Your task to perform on an android device: turn off notifications in google photos Image 0: 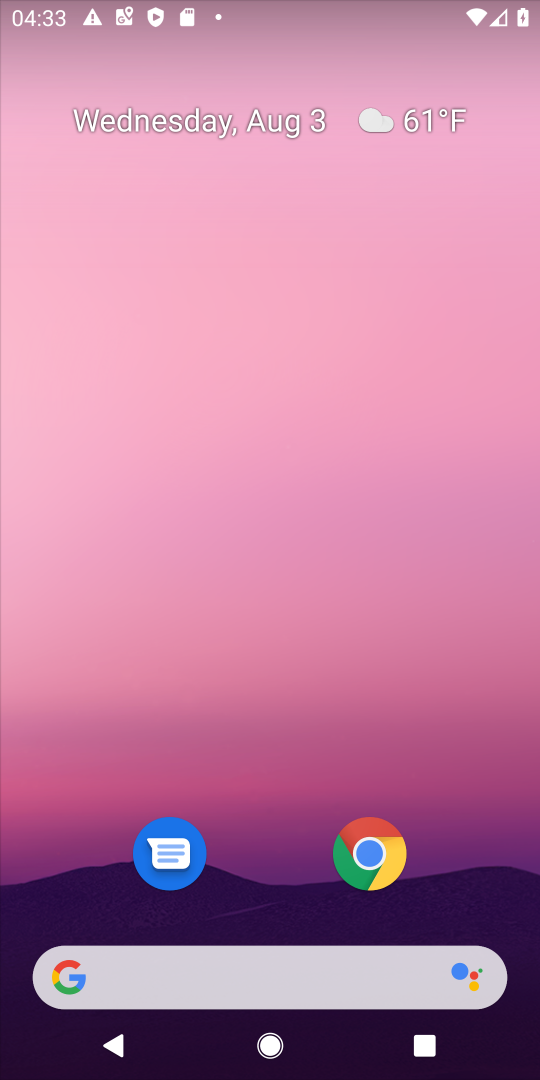
Step 0: drag from (314, 964) to (294, 233)
Your task to perform on an android device: turn off notifications in google photos Image 1: 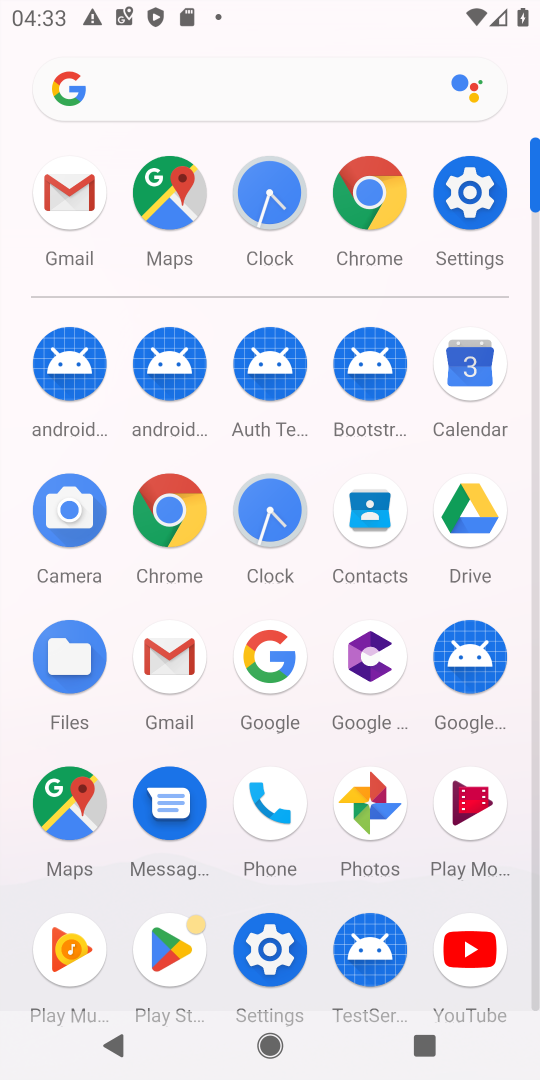
Step 1: click (365, 797)
Your task to perform on an android device: turn off notifications in google photos Image 2: 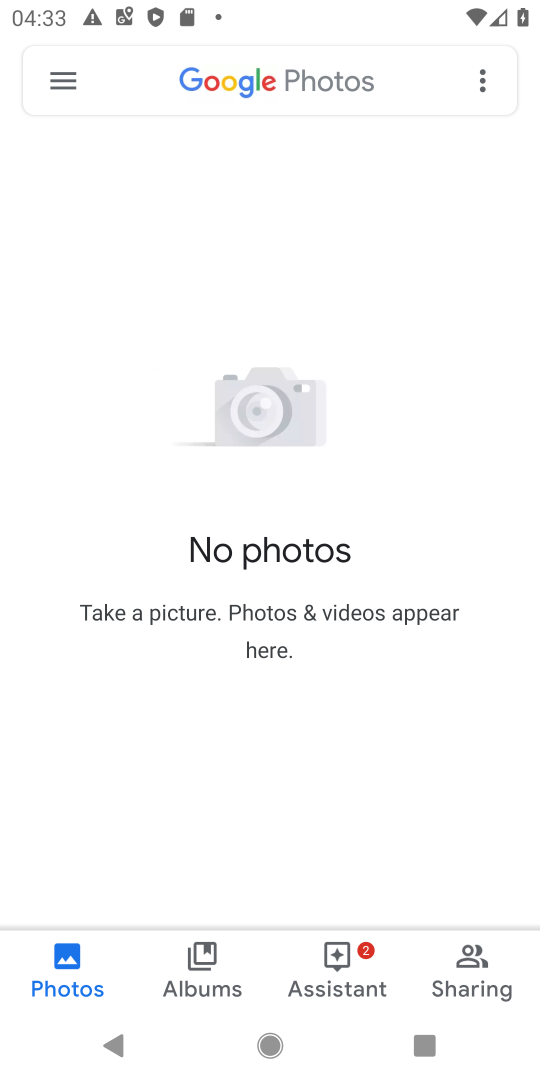
Step 2: click (66, 79)
Your task to perform on an android device: turn off notifications in google photos Image 3: 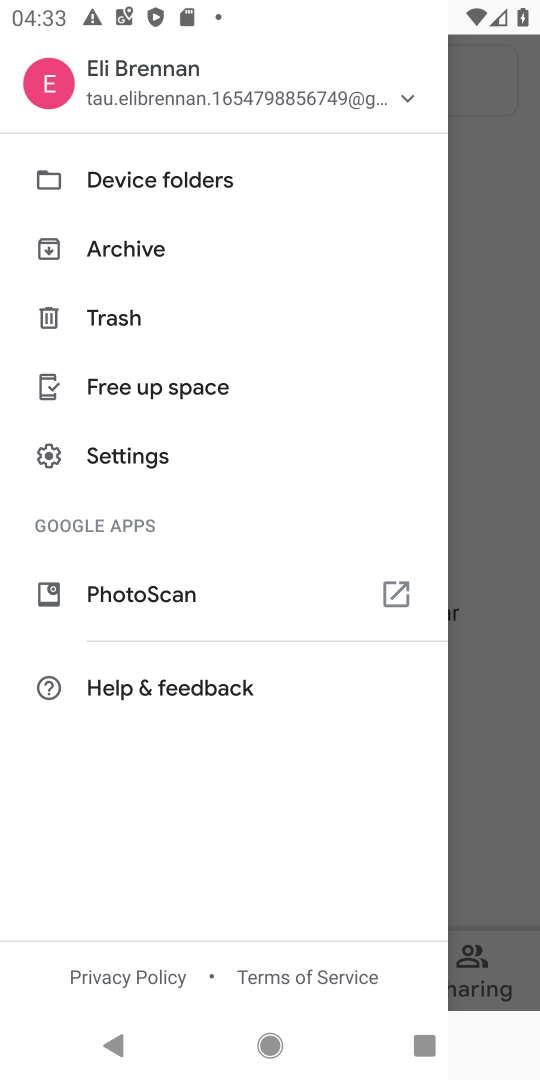
Step 3: click (122, 452)
Your task to perform on an android device: turn off notifications in google photos Image 4: 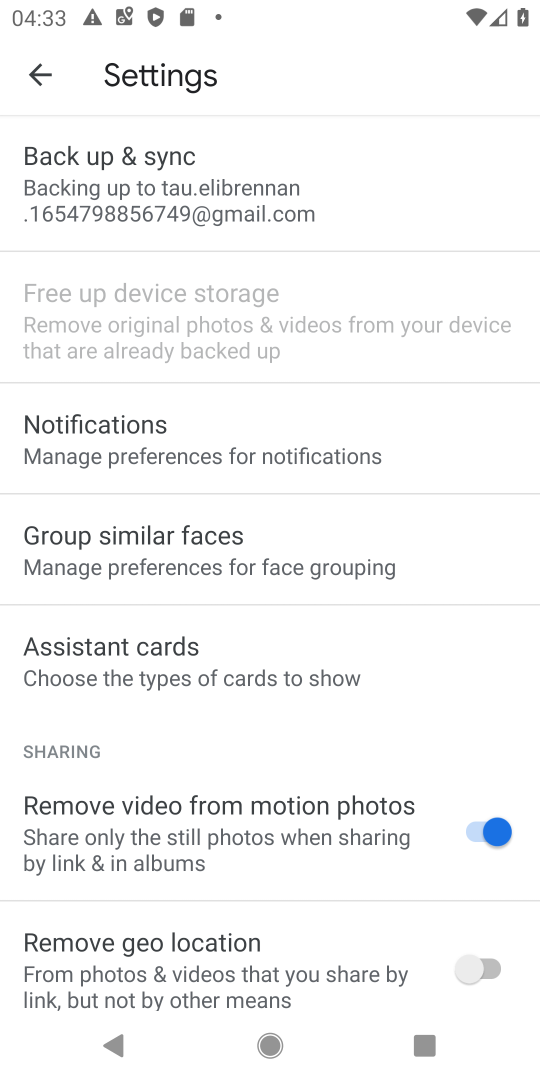
Step 4: click (176, 445)
Your task to perform on an android device: turn off notifications in google photos Image 5: 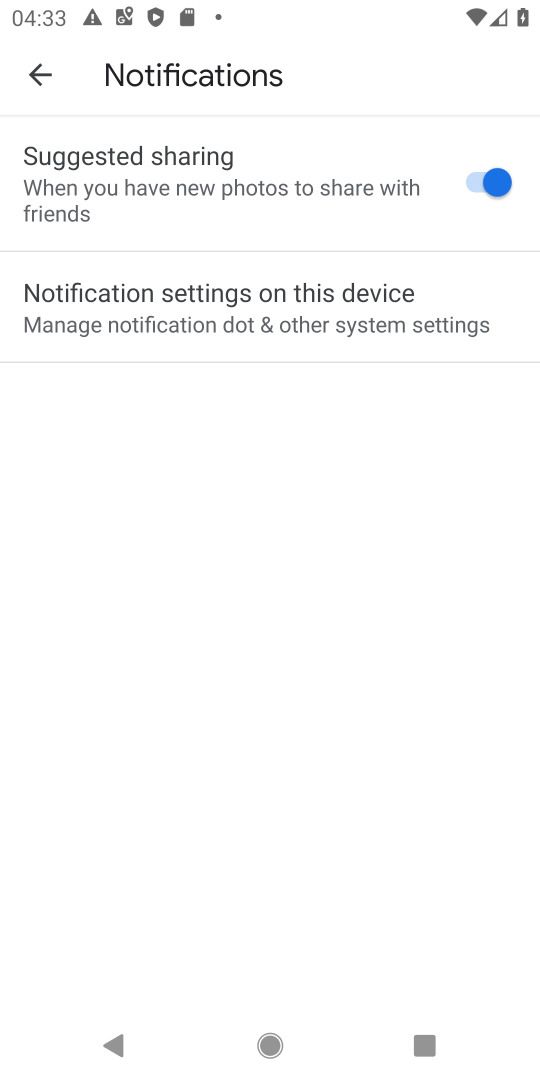
Step 5: click (255, 308)
Your task to perform on an android device: turn off notifications in google photos Image 6: 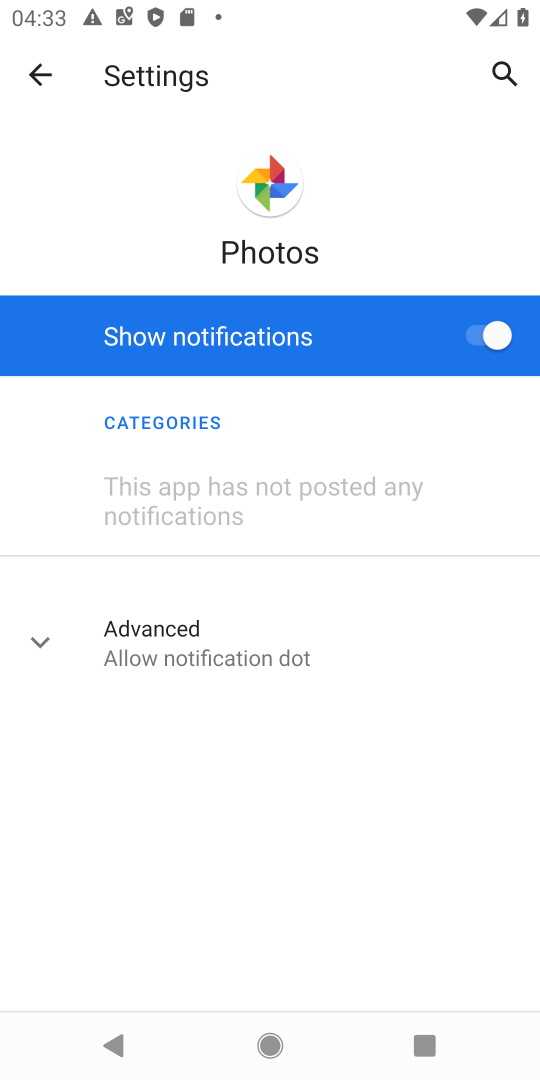
Step 6: click (473, 339)
Your task to perform on an android device: turn off notifications in google photos Image 7: 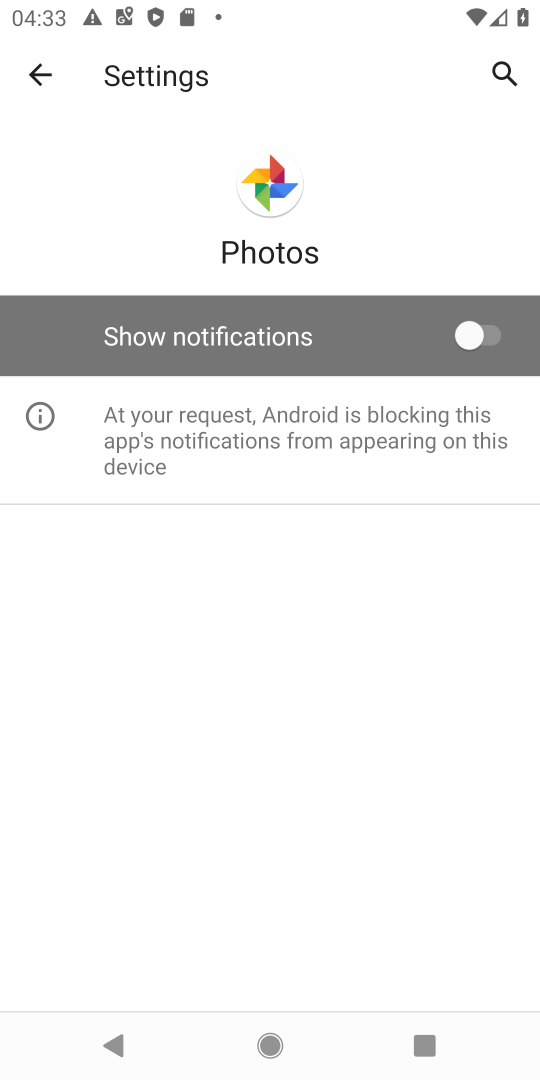
Step 7: task complete